Your task to perform on an android device: uninstall "Expedia: Hotels, Flights & Car" Image 0: 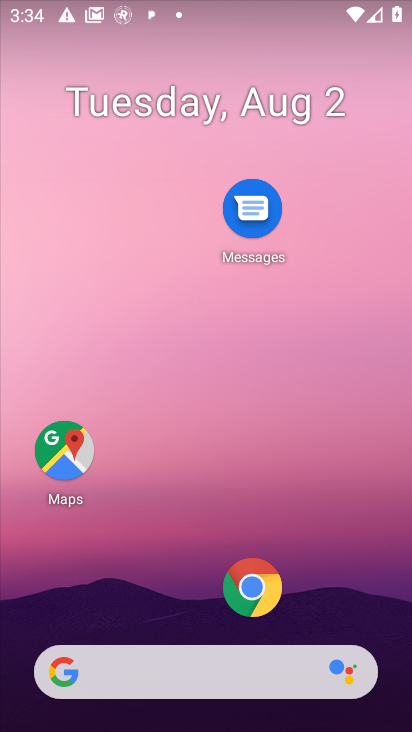
Step 0: drag from (148, 602) to (157, 267)
Your task to perform on an android device: uninstall "Expedia: Hotels, Flights & Car" Image 1: 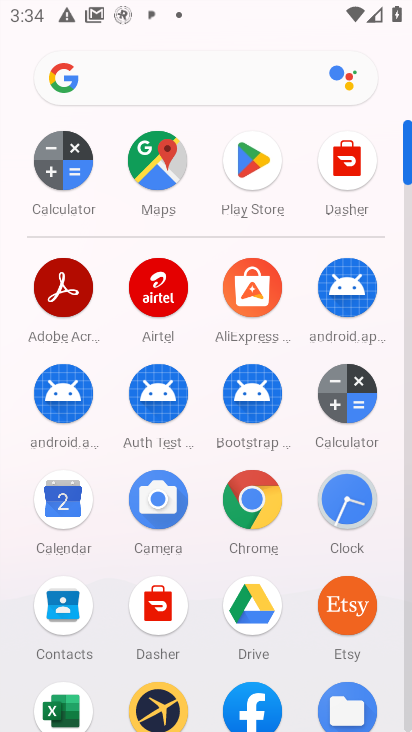
Step 1: click (235, 147)
Your task to perform on an android device: uninstall "Expedia: Hotels, Flights & Car" Image 2: 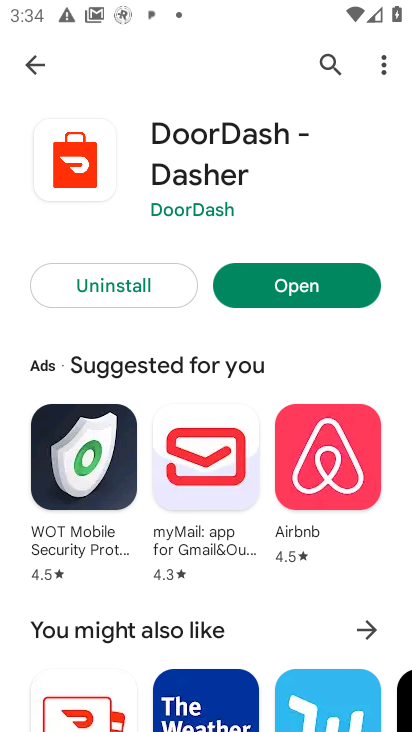
Step 2: click (320, 72)
Your task to perform on an android device: uninstall "Expedia: Hotels, Flights & Car" Image 3: 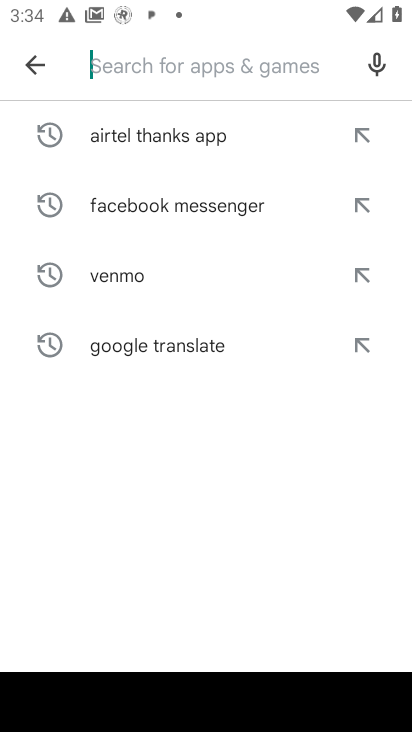
Step 3: type "Expedia: Hotels, Flights & Car"
Your task to perform on an android device: uninstall "Expedia: Hotels, Flights & Car" Image 4: 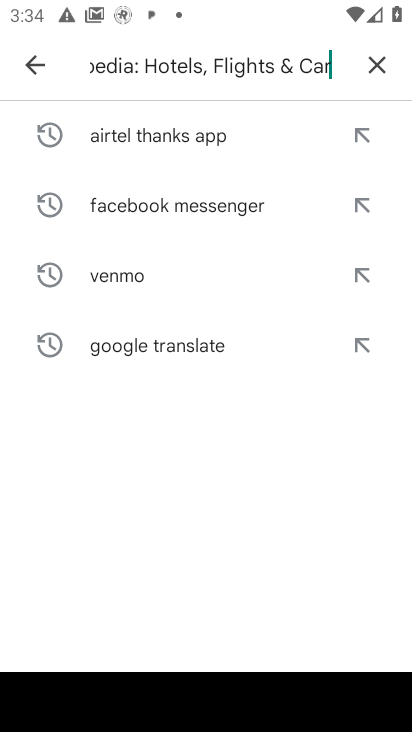
Step 4: type ""
Your task to perform on an android device: uninstall "Expedia: Hotels, Flights & Car" Image 5: 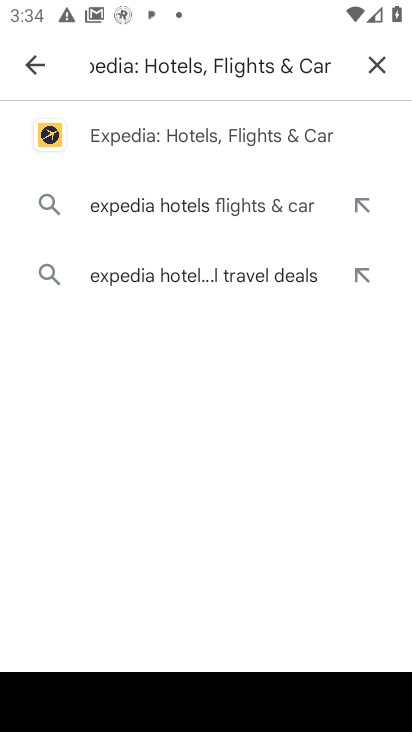
Step 5: click (157, 140)
Your task to perform on an android device: uninstall "Expedia: Hotels, Flights & Car" Image 6: 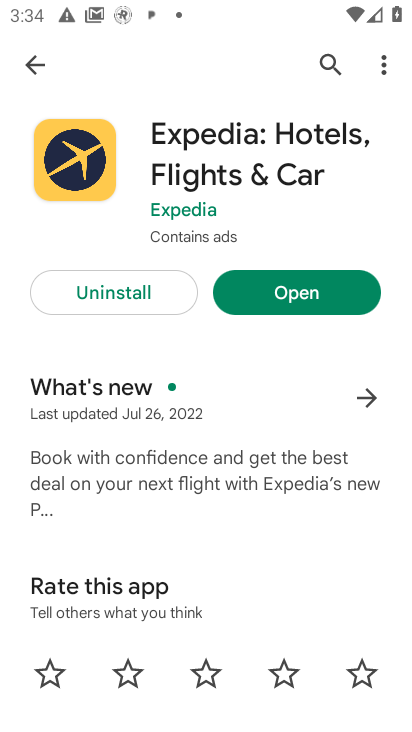
Step 6: click (112, 305)
Your task to perform on an android device: uninstall "Expedia: Hotels, Flights & Car" Image 7: 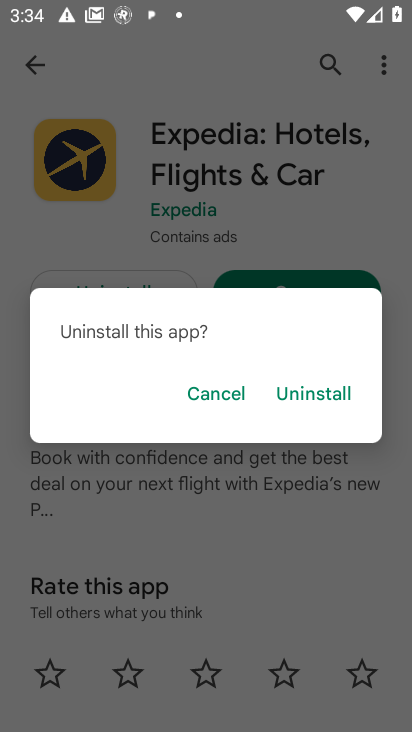
Step 7: click (308, 395)
Your task to perform on an android device: uninstall "Expedia: Hotels, Flights & Car" Image 8: 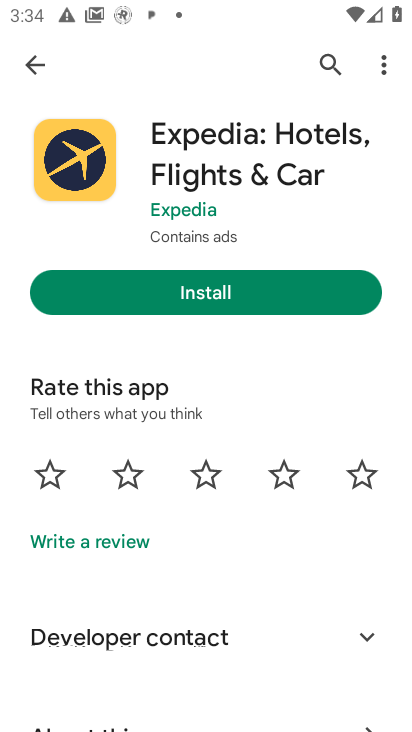
Step 8: task complete